Your task to perform on an android device: change keyboard looks Image 0: 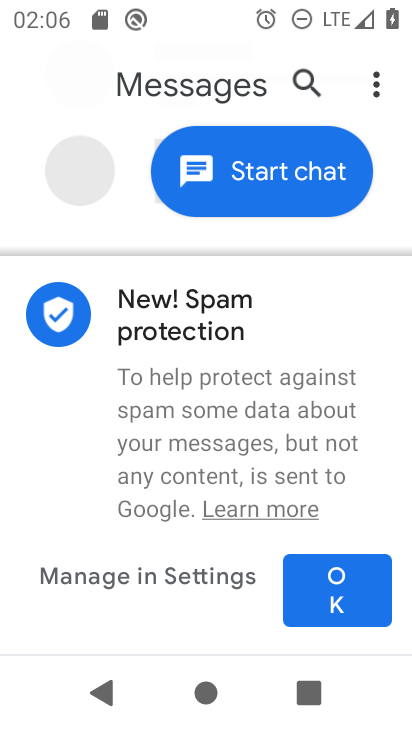
Step 0: press home button
Your task to perform on an android device: change keyboard looks Image 1: 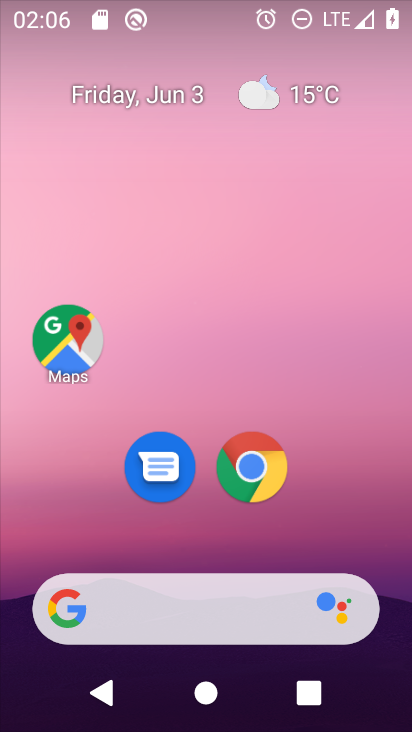
Step 1: drag from (396, 616) to (302, 36)
Your task to perform on an android device: change keyboard looks Image 2: 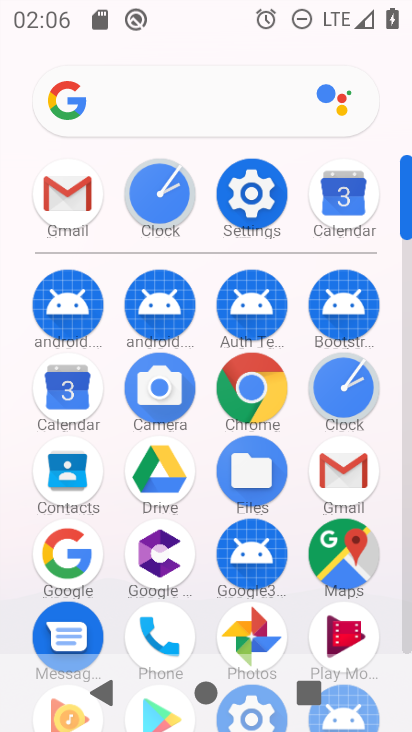
Step 2: click (409, 648)
Your task to perform on an android device: change keyboard looks Image 3: 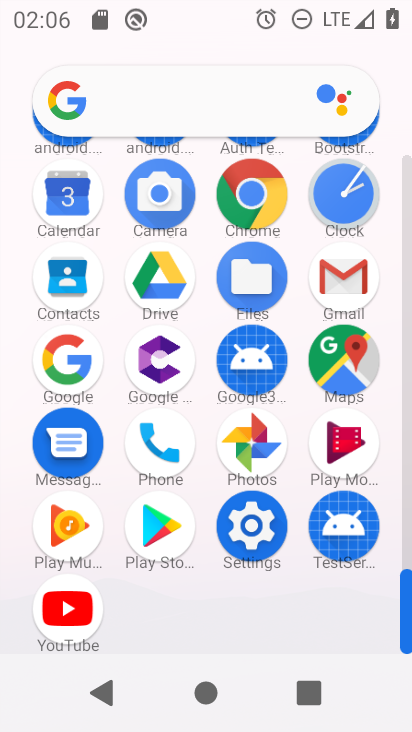
Step 3: click (251, 526)
Your task to perform on an android device: change keyboard looks Image 4: 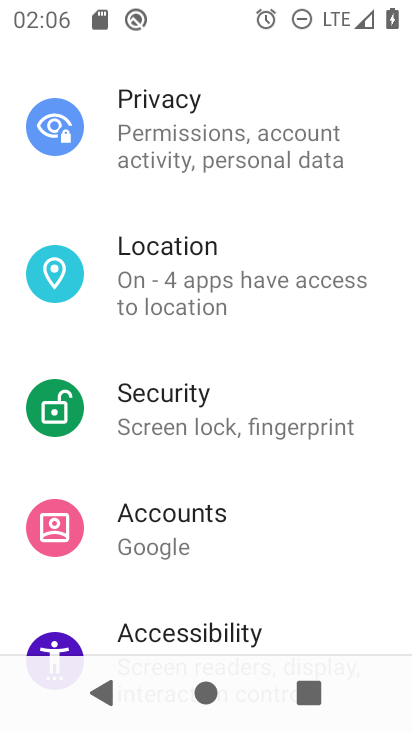
Step 4: drag from (358, 624) to (356, 177)
Your task to perform on an android device: change keyboard looks Image 5: 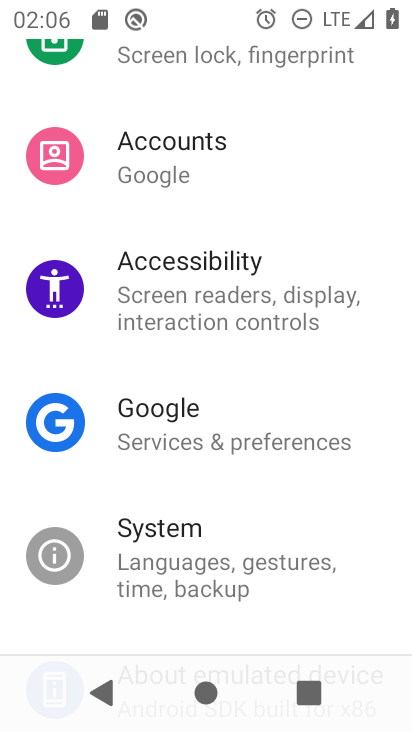
Step 5: drag from (343, 564) to (342, 173)
Your task to perform on an android device: change keyboard looks Image 6: 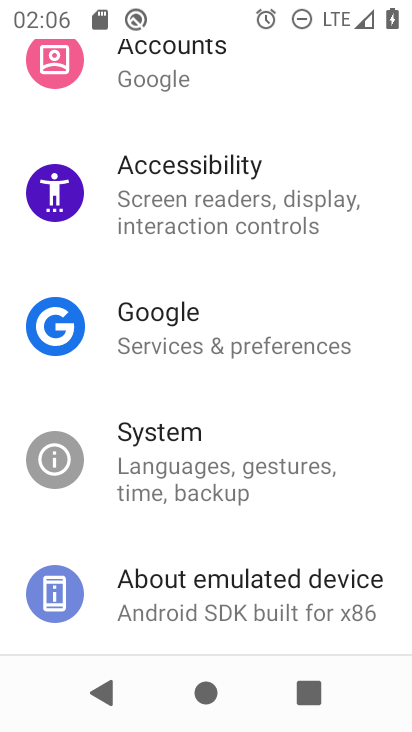
Step 6: click (138, 465)
Your task to perform on an android device: change keyboard looks Image 7: 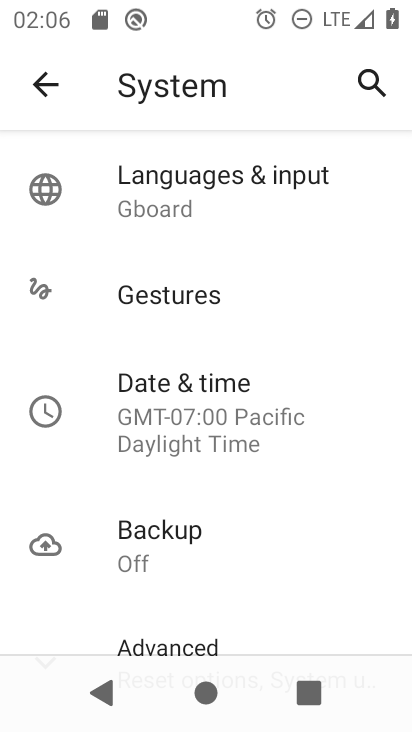
Step 7: click (153, 184)
Your task to perform on an android device: change keyboard looks Image 8: 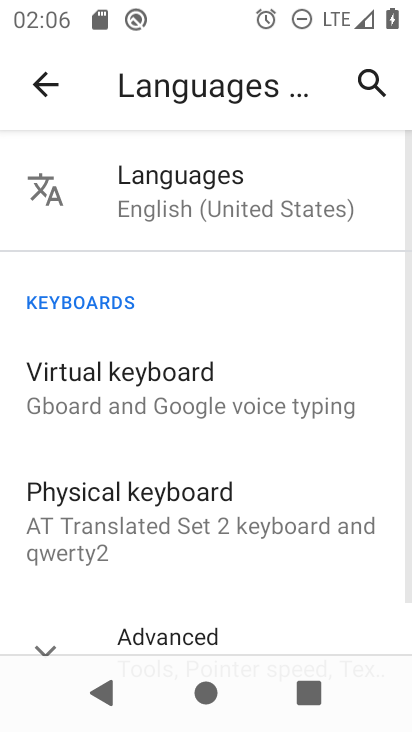
Step 8: click (104, 531)
Your task to perform on an android device: change keyboard looks Image 9: 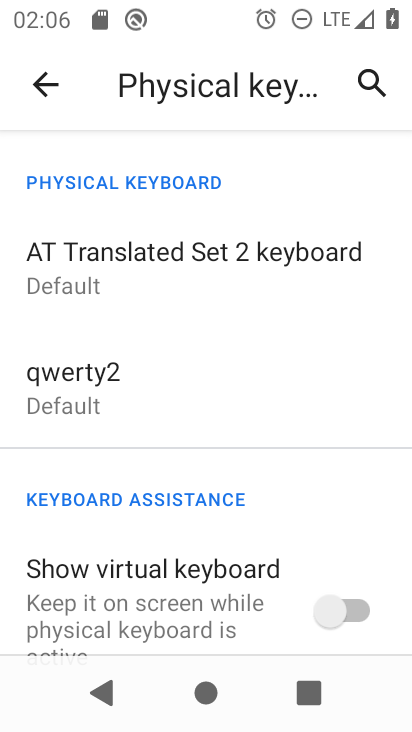
Step 9: click (67, 379)
Your task to perform on an android device: change keyboard looks Image 10: 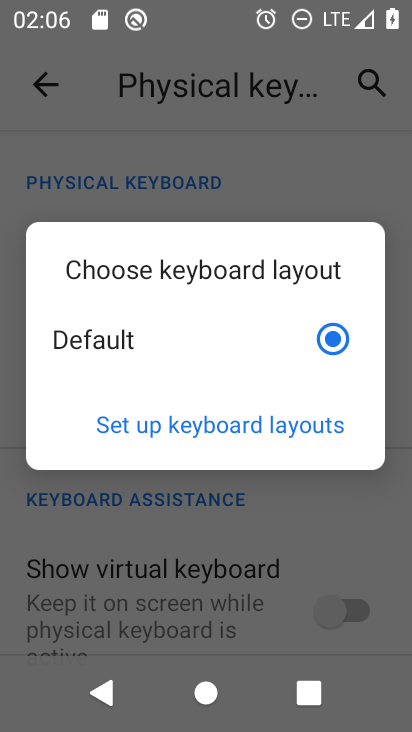
Step 10: click (212, 422)
Your task to perform on an android device: change keyboard looks Image 11: 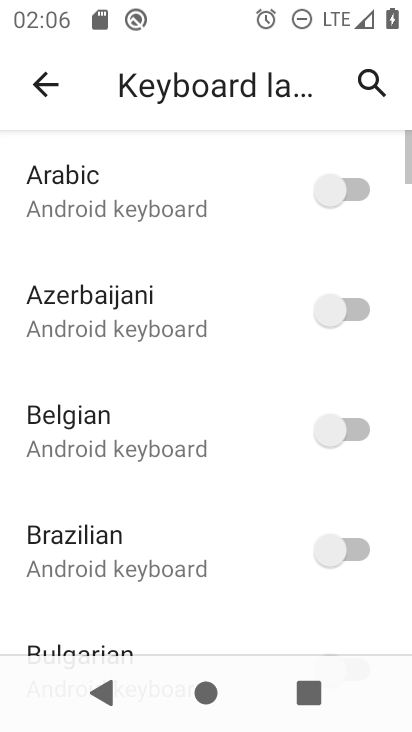
Step 11: drag from (323, 550) to (282, 132)
Your task to perform on an android device: change keyboard looks Image 12: 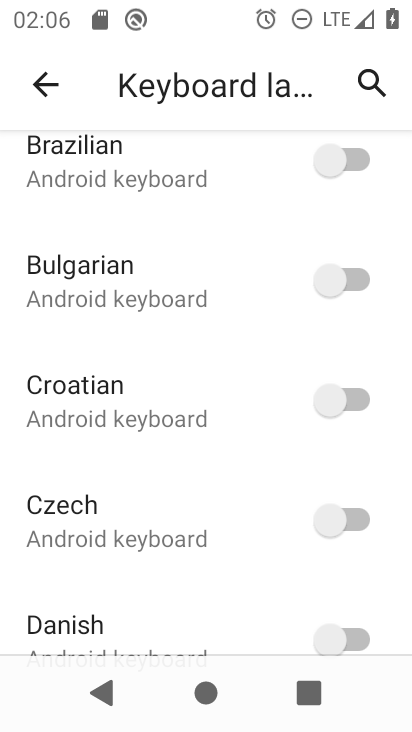
Step 12: drag from (296, 619) to (222, 124)
Your task to perform on an android device: change keyboard looks Image 13: 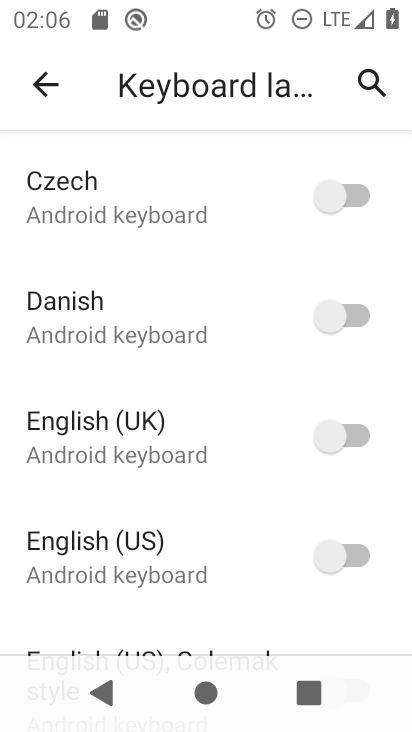
Step 13: click (358, 547)
Your task to perform on an android device: change keyboard looks Image 14: 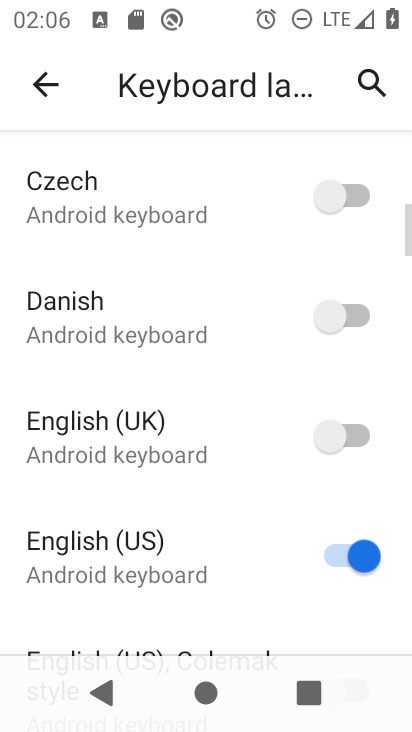
Step 14: task complete